Your task to perform on an android device: Go to settings Image 0: 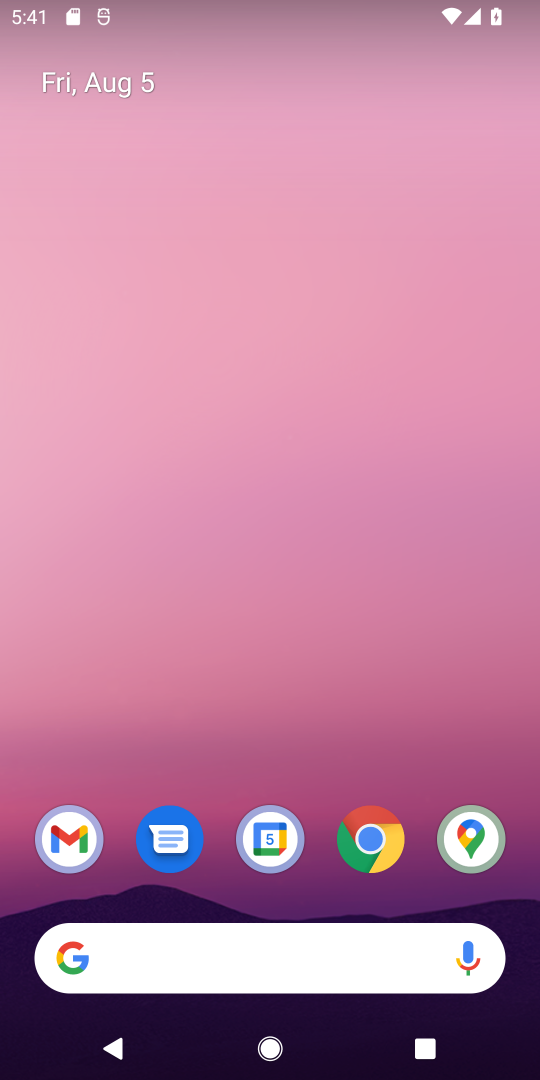
Step 0: drag from (236, 783) to (236, 112)
Your task to perform on an android device: Go to settings Image 1: 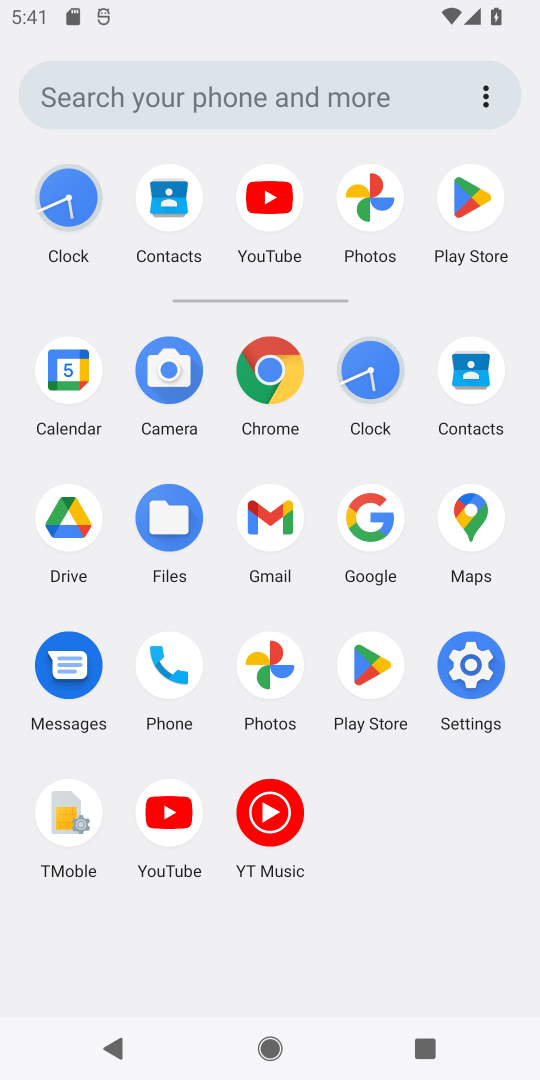
Step 1: click (445, 684)
Your task to perform on an android device: Go to settings Image 2: 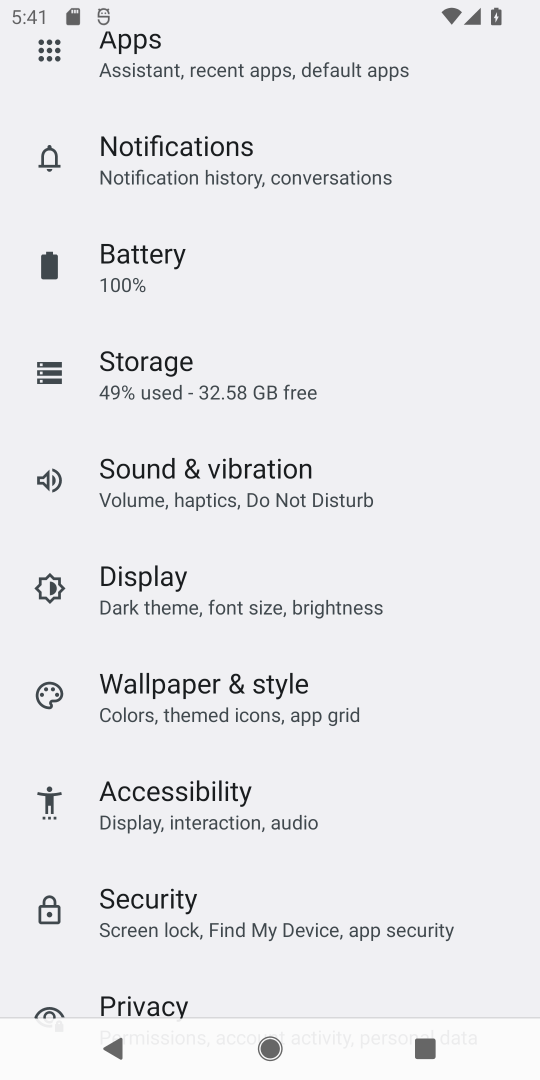
Step 2: task complete